Your task to perform on an android device: open a new tab in the chrome app Image 0: 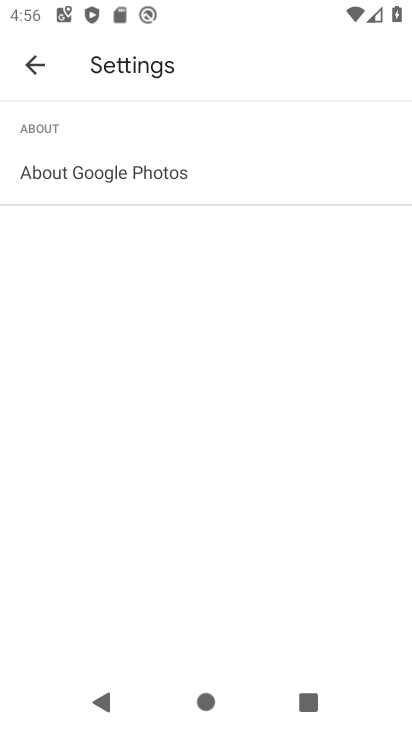
Step 0: press home button
Your task to perform on an android device: open a new tab in the chrome app Image 1: 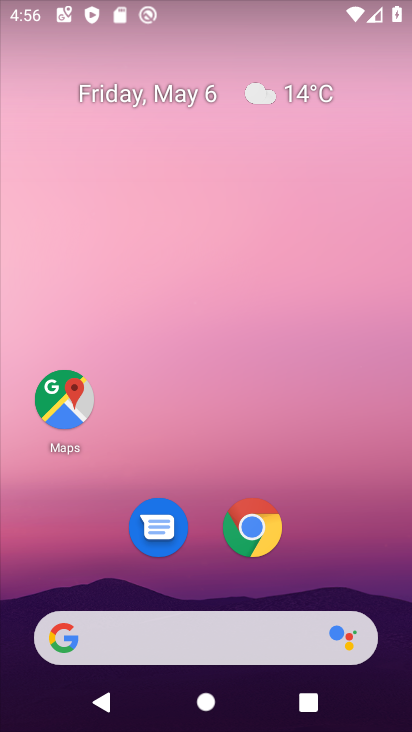
Step 1: drag from (322, 571) to (310, 86)
Your task to perform on an android device: open a new tab in the chrome app Image 2: 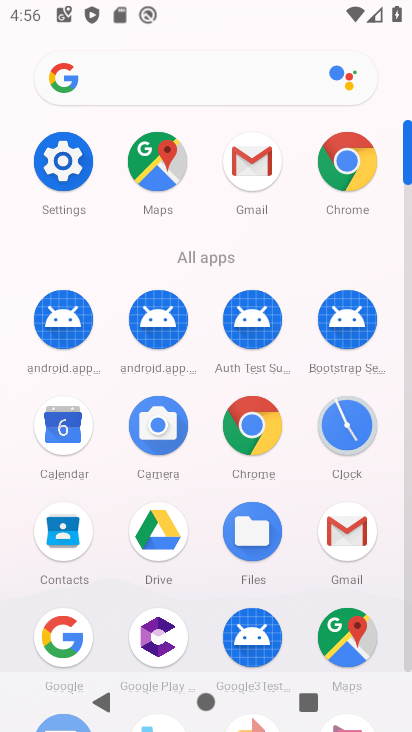
Step 2: click (339, 151)
Your task to perform on an android device: open a new tab in the chrome app Image 3: 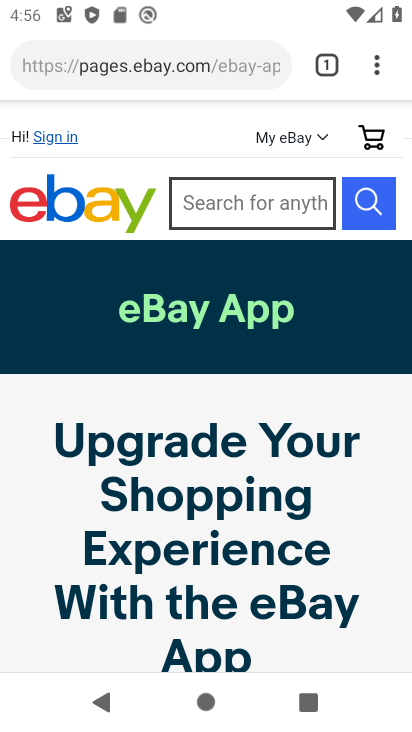
Step 3: task complete